Your task to perform on an android device: turn on location history Image 0: 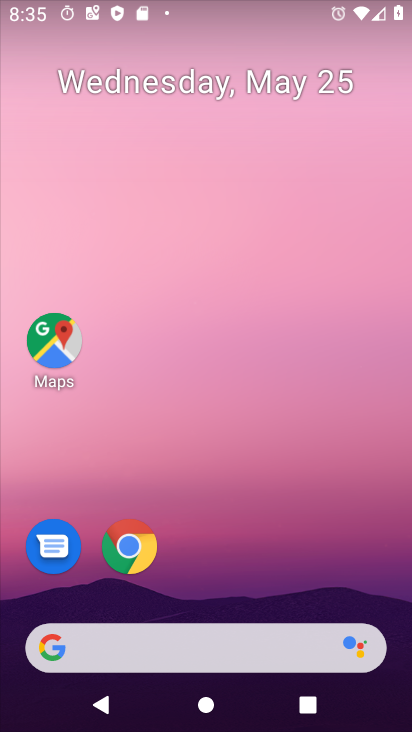
Step 0: drag from (218, 593) to (228, 4)
Your task to perform on an android device: turn on location history Image 1: 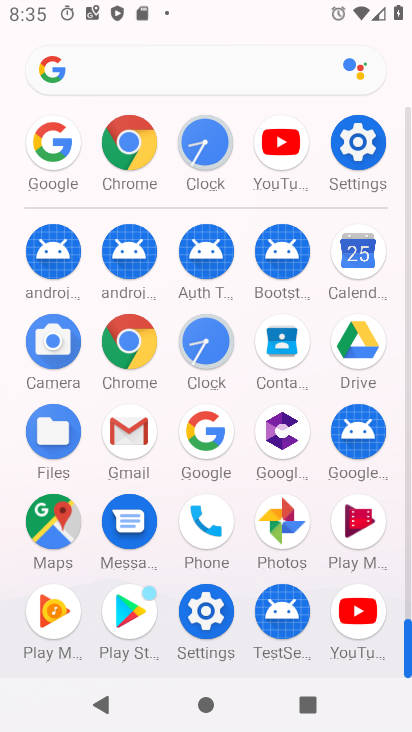
Step 1: click (359, 185)
Your task to perform on an android device: turn on location history Image 2: 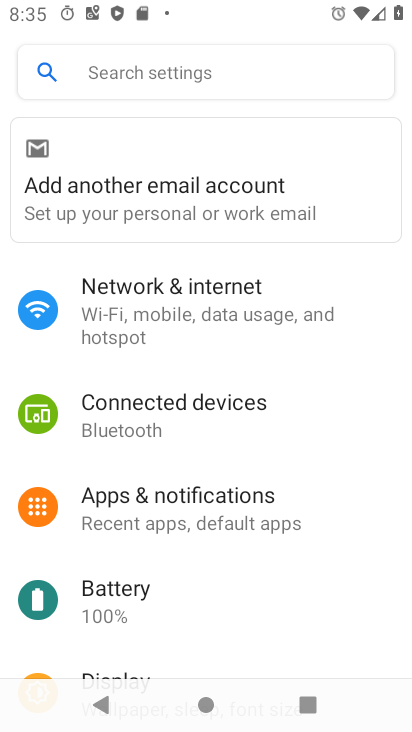
Step 2: drag from (201, 633) to (173, 214)
Your task to perform on an android device: turn on location history Image 3: 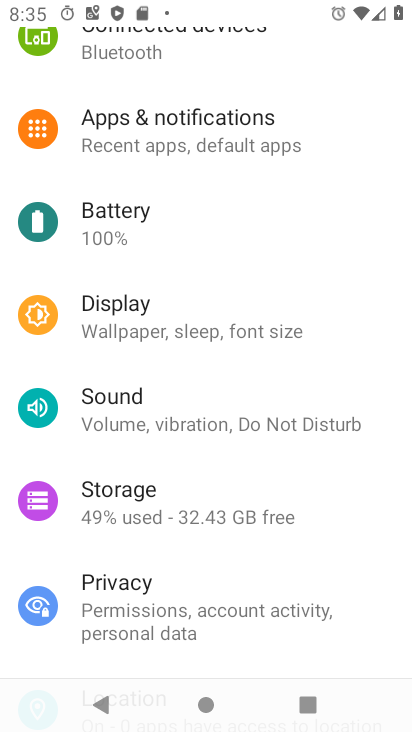
Step 3: drag from (140, 580) to (203, 235)
Your task to perform on an android device: turn on location history Image 4: 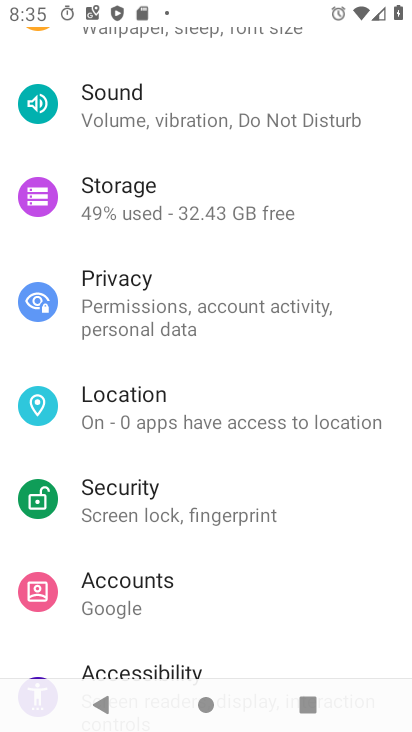
Step 4: click (110, 421)
Your task to perform on an android device: turn on location history Image 5: 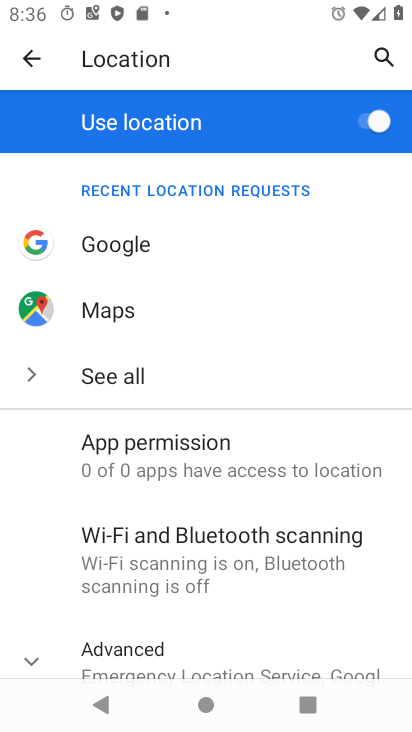
Step 5: drag from (196, 653) to (249, 383)
Your task to perform on an android device: turn on location history Image 6: 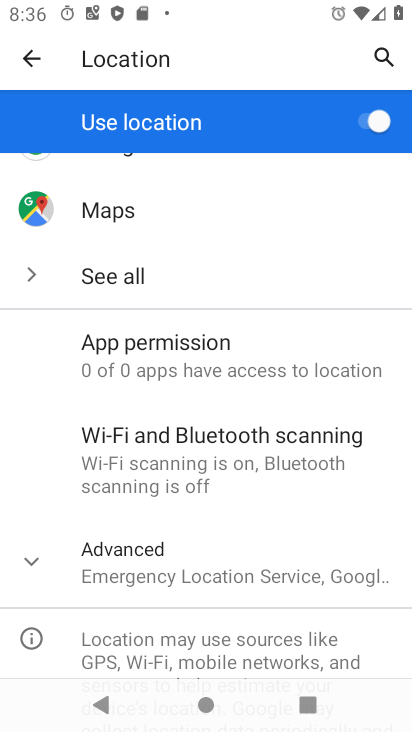
Step 6: click (138, 569)
Your task to perform on an android device: turn on location history Image 7: 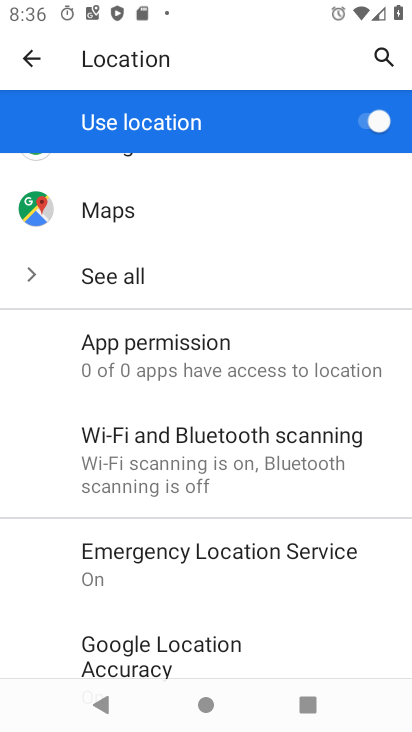
Step 7: drag from (166, 680) to (238, 427)
Your task to perform on an android device: turn on location history Image 8: 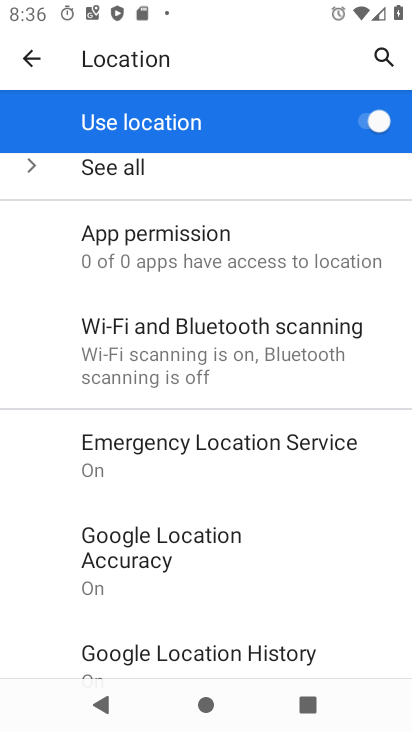
Step 8: drag from (182, 659) to (218, 424)
Your task to perform on an android device: turn on location history Image 9: 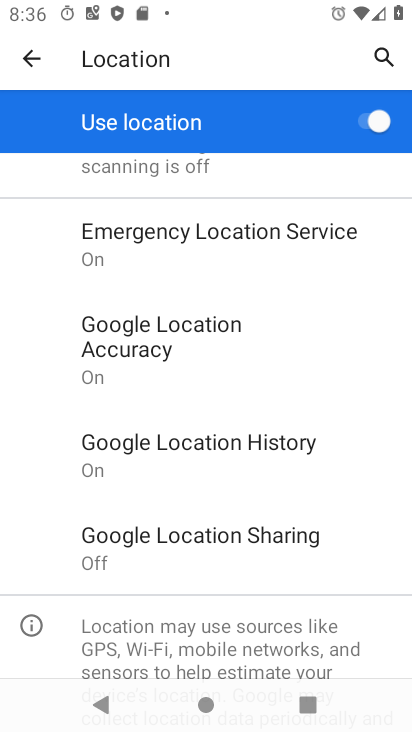
Step 9: click (196, 463)
Your task to perform on an android device: turn on location history Image 10: 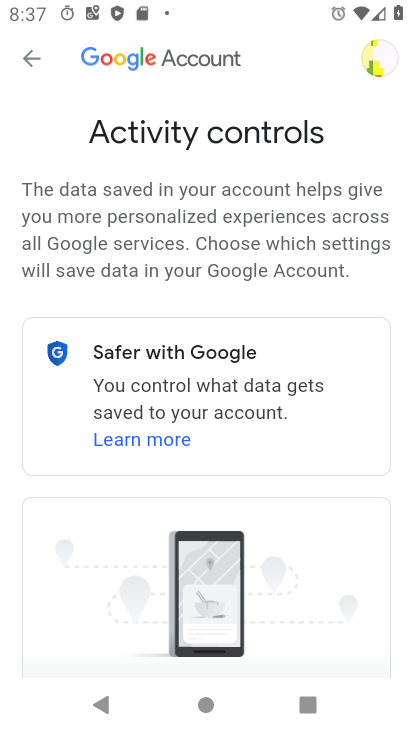
Step 10: drag from (265, 622) to (311, 167)
Your task to perform on an android device: turn on location history Image 11: 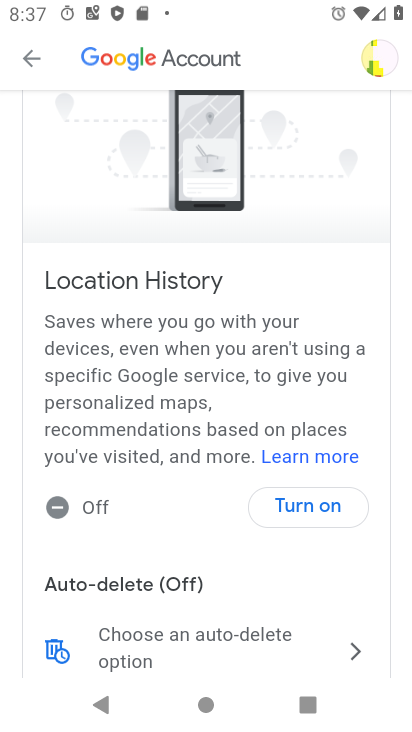
Step 11: click (310, 507)
Your task to perform on an android device: turn on location history Image 12: 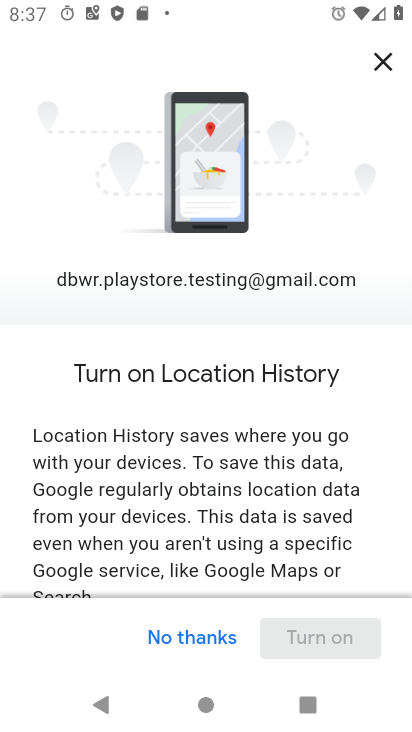
Step 12: drag from (220, 550) to (222, 178)
Your task to perform on an android device: turn on location history Image 13: 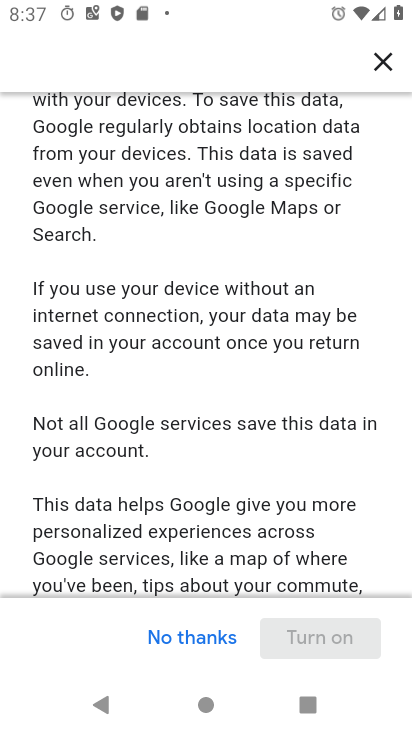
Step 13: drag from (221, 570) to (257, 107)
Your task to perform on an android device: turn on location history Image 14: 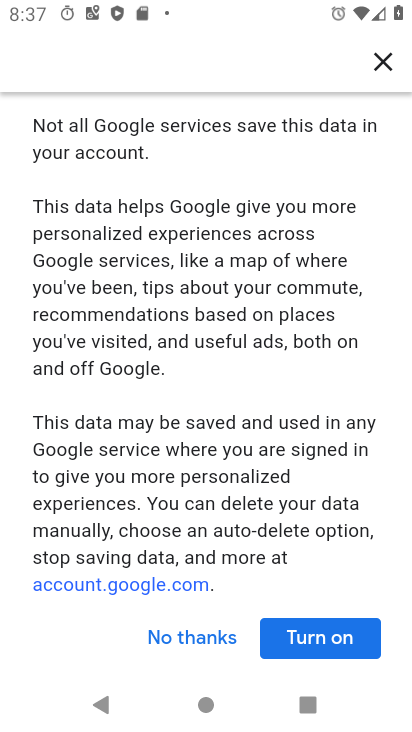
Step 14: click (295, 641)
Your task to perform on an android device: turn on location history Image 15: 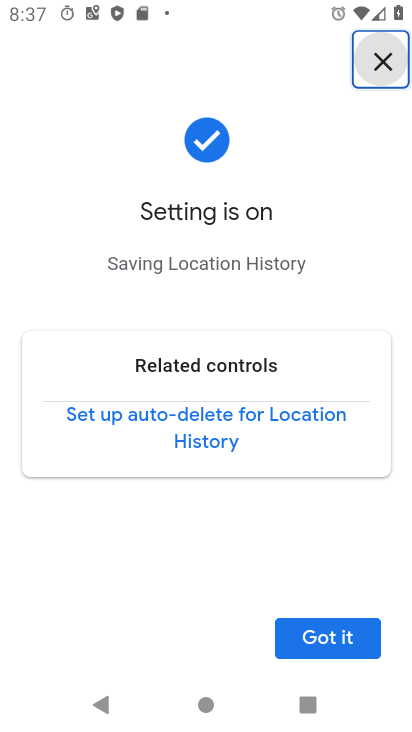
Step 15: click (295, 641)
Your task to perform on an android device: turn on location history Image 16: 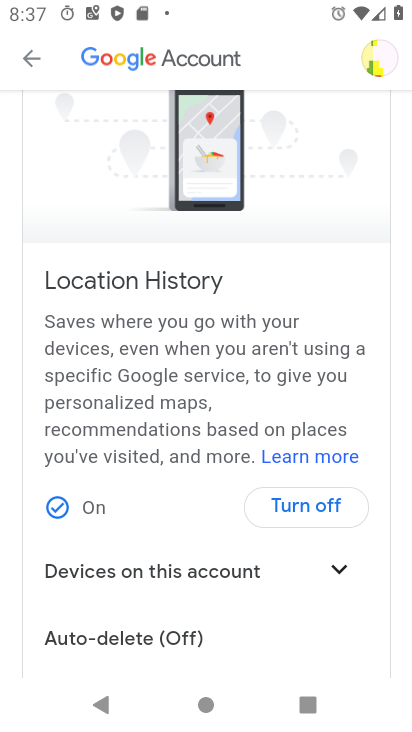
Step 16: task complete